Your task to perform on an android device: Open Android settings Image 0: 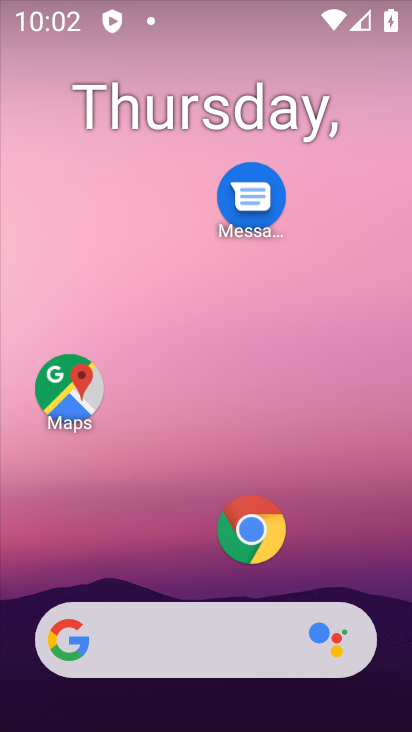
Step 0: drag from (121, 559) to (212, 11)
Your task to perform on an android device: Open Android settings Image 1: 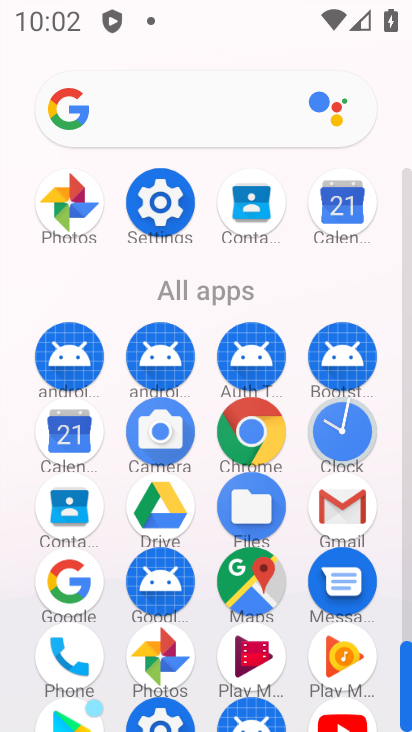
Step 1: click (160, 205)
Your task to perform on an android device: Open Android settings Image 2: 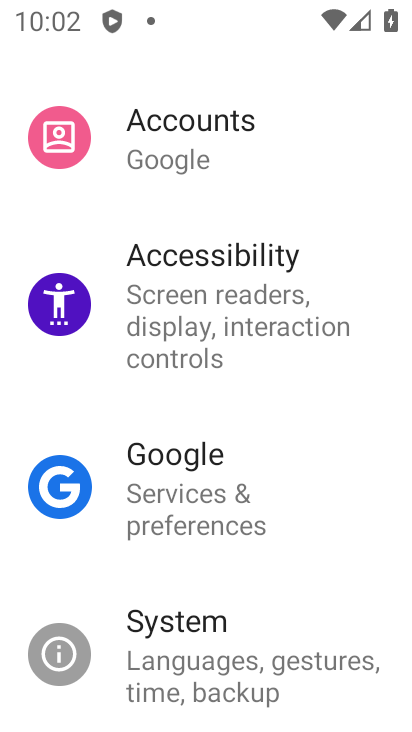
Step 2: task complete